Your task to perform on an android device: Open internet settings Image 0: 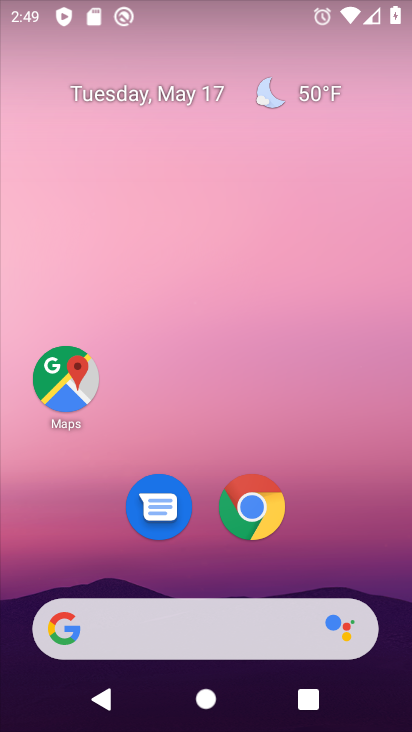
Step 0: drag from (344, 511) to (231, 61)
Your task to perform on an android device: Open internet settings Image 1: 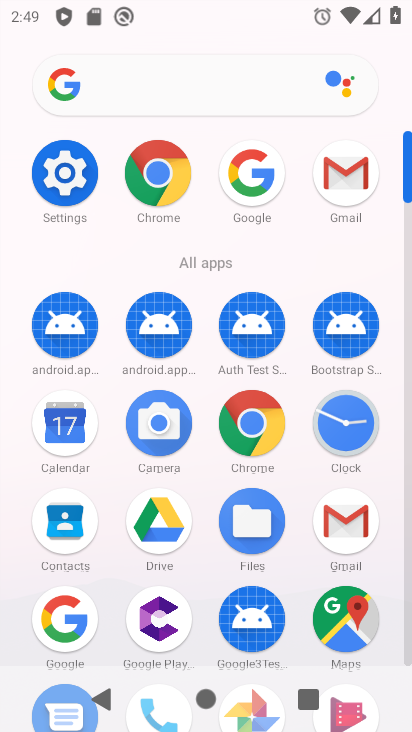
Step 1: click (78, 176)
Your task to perform on an android device: Open internet settings Image 2: 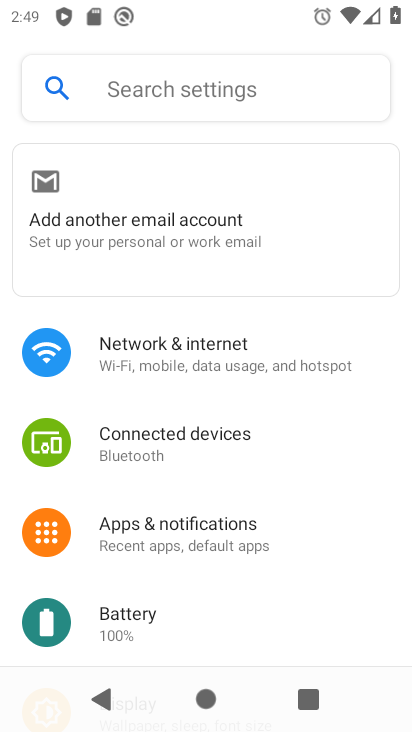
Step 2: click (221, 357)
Your task to perform on an android device: Open internet settings Image 3: 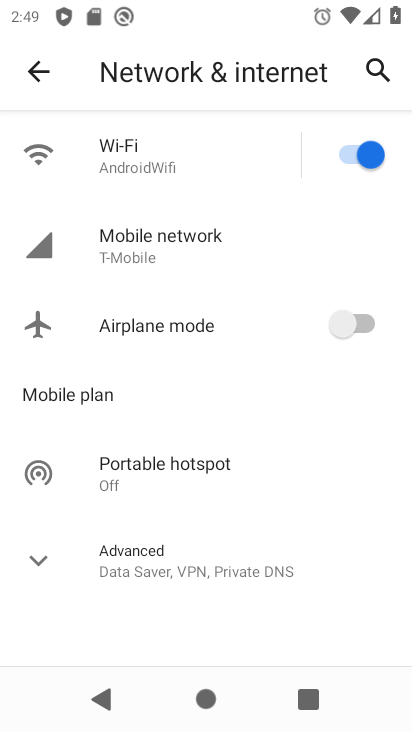
Step 3: task complete